Your task to perform on an android device: Search for Mexican restaurants on Maps Image 0: 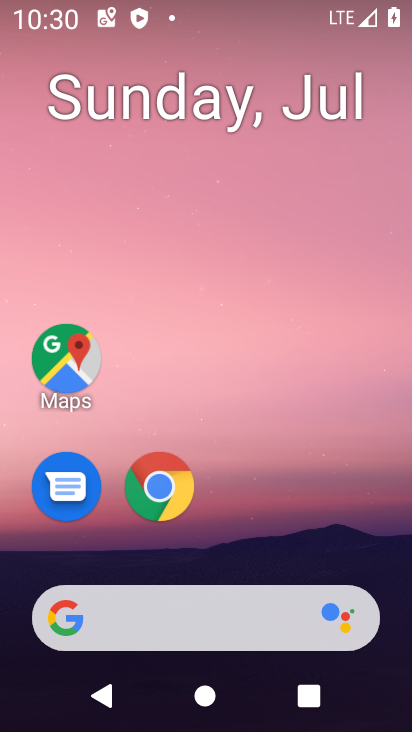
Step 0: drag from (395, 516) to (411, 62)
Your task to perform on an android device: Search for Mexican restaurants on Maps Image 1: 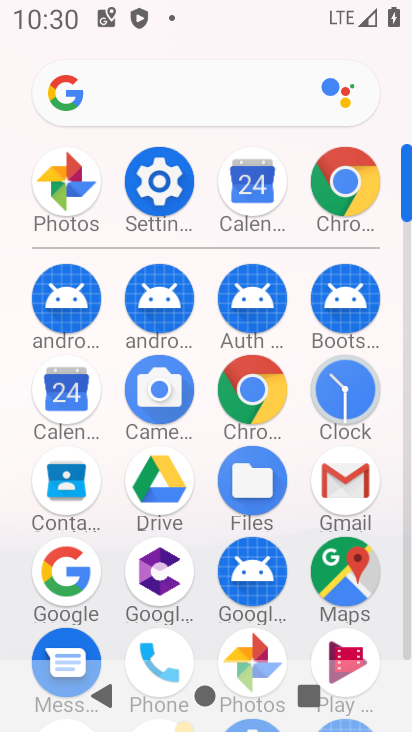
Step 1: click (355, 573)
Your task to perform on an android device: Search for Mexican restaurants on Maps Image 2: 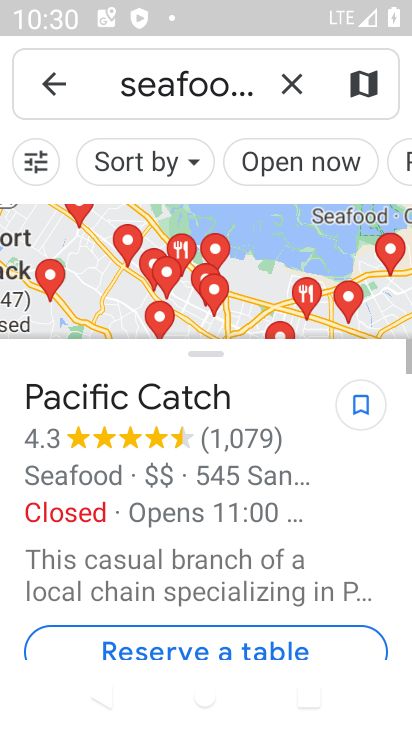
Step 2: press back button
Your task to perform on an android device: Search for Mexican restaurants on Maps Image 3: 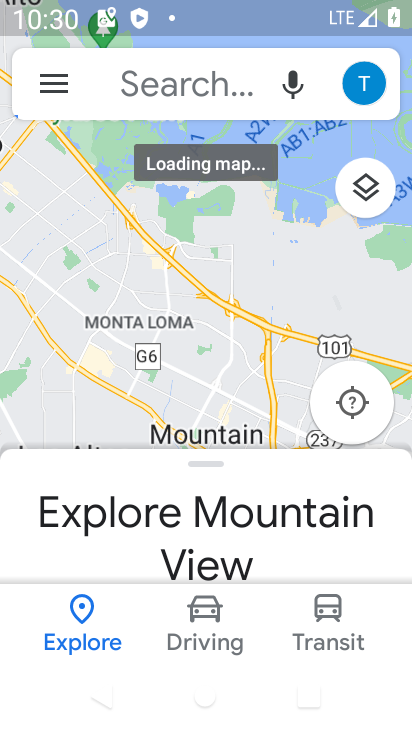
Step 3: click (200, 88)
Your task to perform on an android device: Search for Mexican restaurants on Maps Image 4: 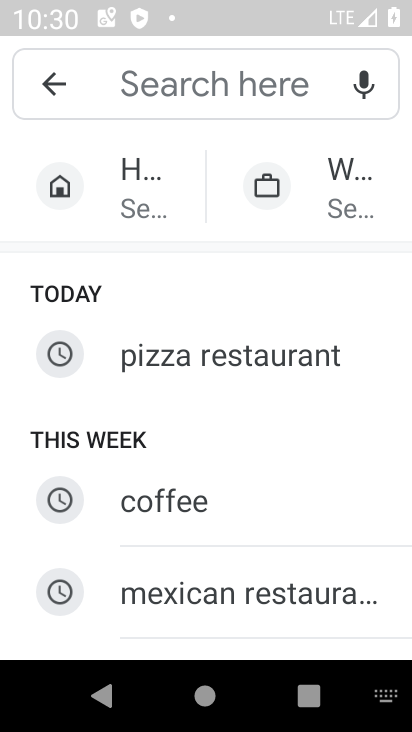
Step 4: type "mexcian restaurants"
Your task to perform on an android device: Search for Mexican restaurants on Maps Image 5: 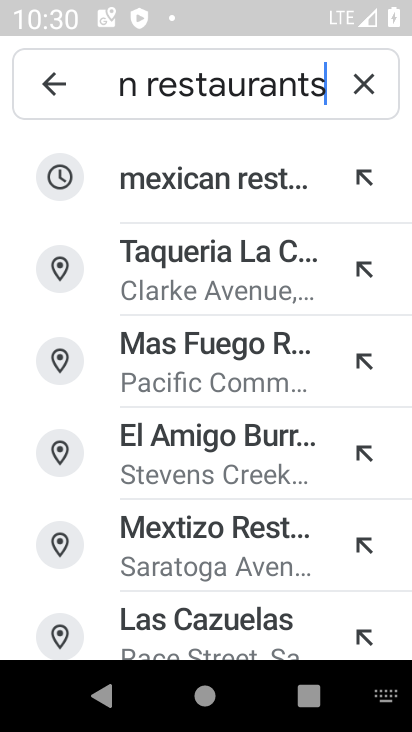
Step 5: click (318, 184)
Your task to perform on an android device: Search for Mexican restaurants on Maps Image 6: 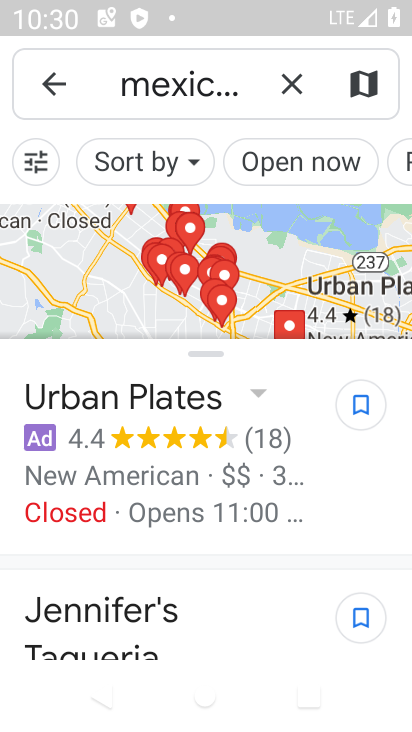
Step 6: task complete